Your task to perform on an android device: Clear the shopping cart on bestbuy. Add "dell xps" to the cart on bestbuy Image 0: 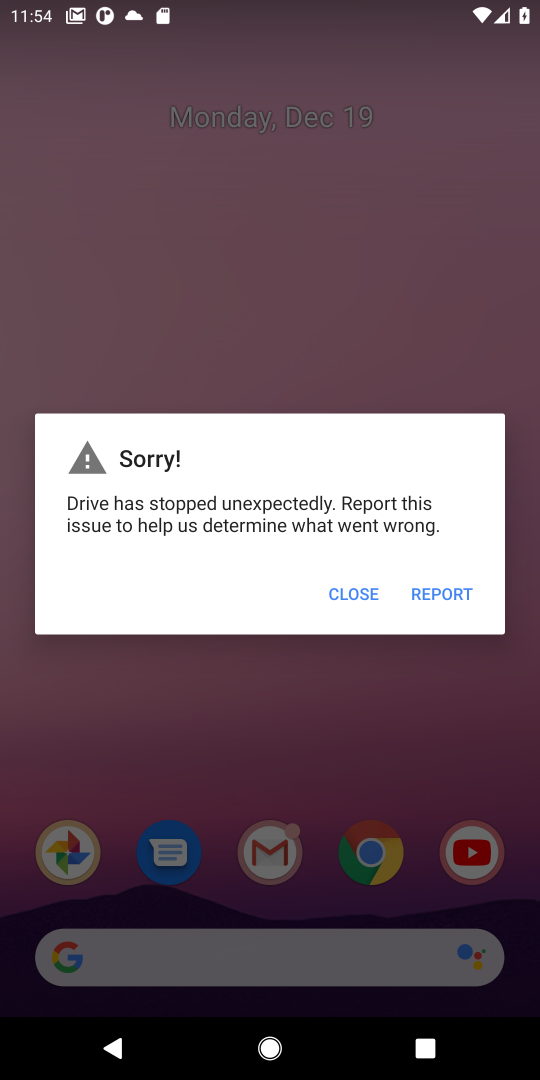
Step 0: press home button
Your task to perform on an android device: Clear the shopping cart on bestbuy. Add "dell xps" to the cart on bestbuy Image 1: 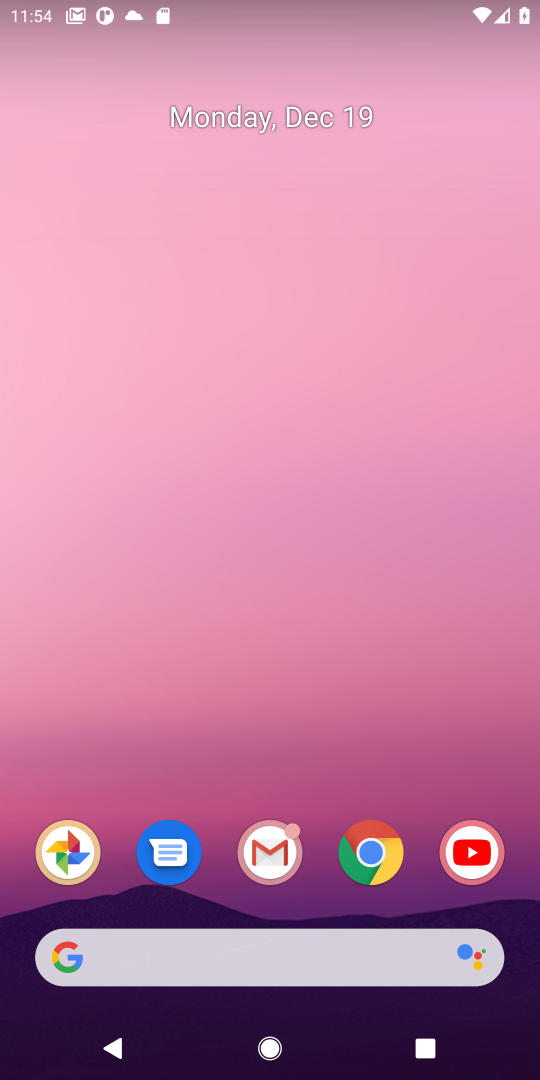
Step 1: click (373, 860)
Your task to perform on an android device: Clear the shopping cart on bestbuy. Add "dell xps" to the cart on bestbuy Image 2: 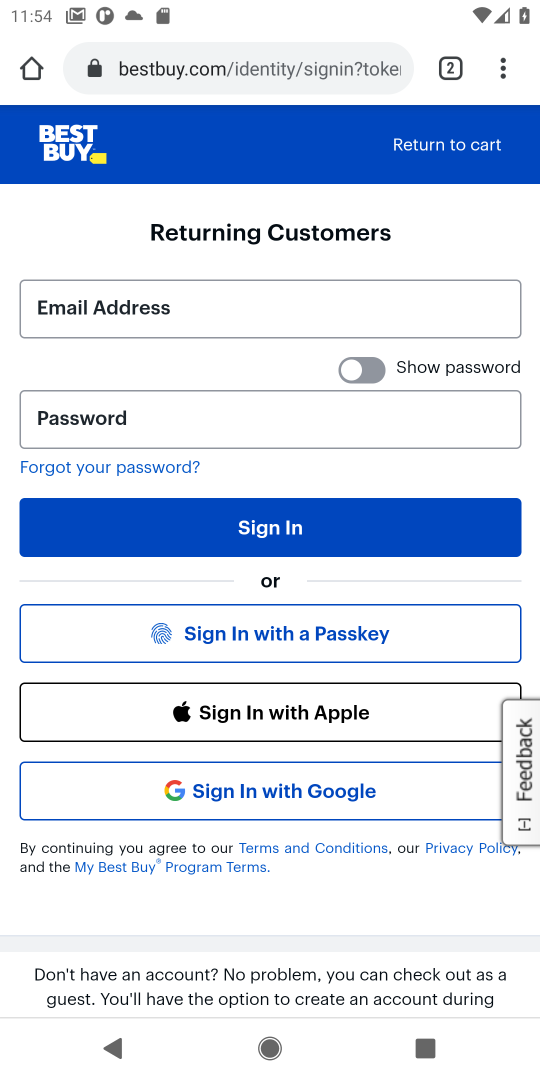
Step 2: press back button
Your task to perform on an android device: Clear the shopping cart on bestbuy. Add "dell xps" to the cart on bestbuy Image 3: 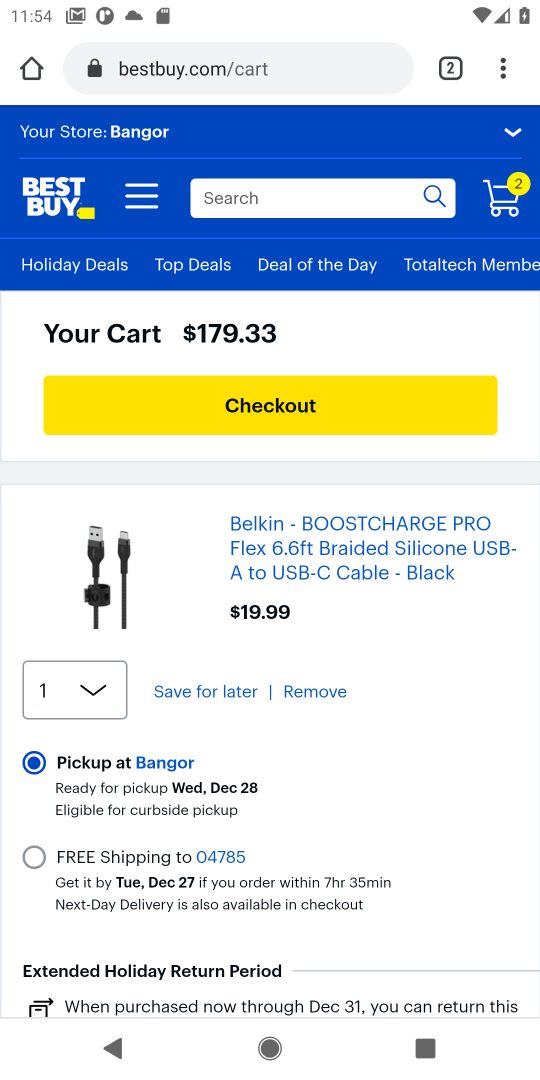
Step 3: drag from (334, 628) to (364, 380)
Your task to perform on an android device: Clear the shopping cart on bestbuy. Add "dell xps" to the cart on bestbuy Image 4: 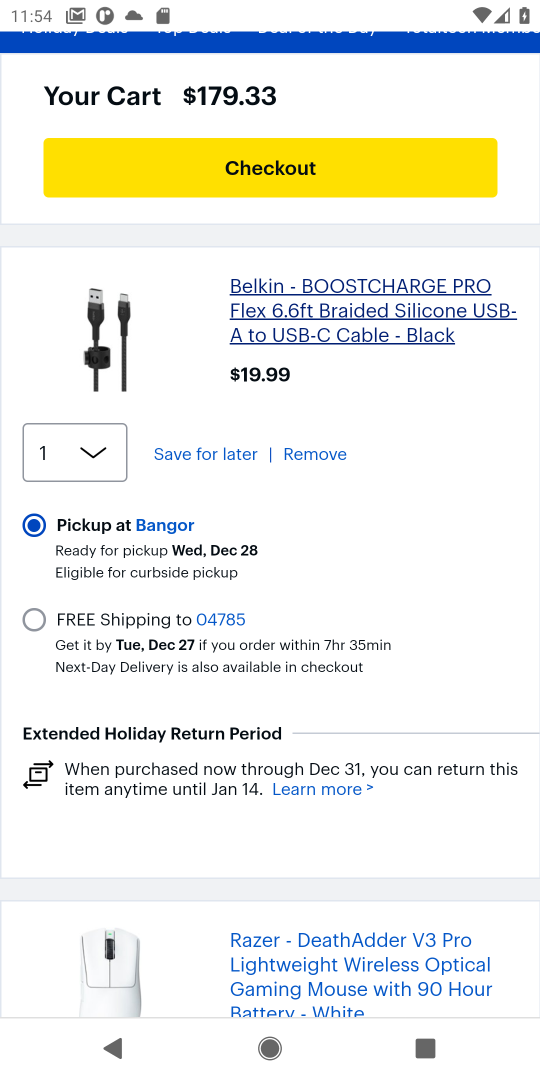
Step 4: click (315, 448)
Your task to perform on an android device: Clear the shopping cart on bestbuy. Add "dell xps" to the cart on bestbuy Image 5: 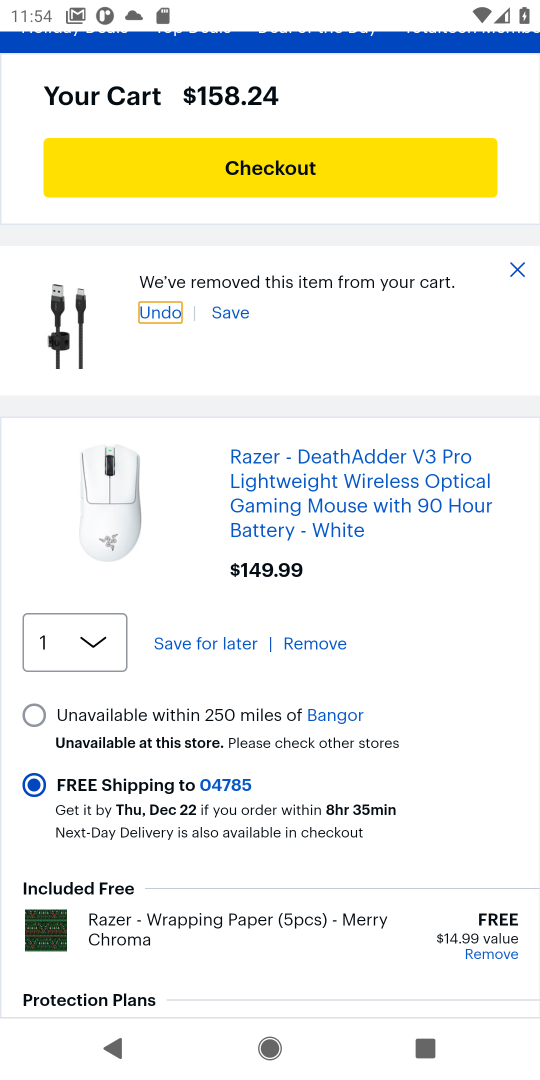
Step 5: click (311, 639)
Your task to perform on an android device: Clear the shopping cart on bestbuy. Add "dell xps" to the cart on bestbuy Image 6: 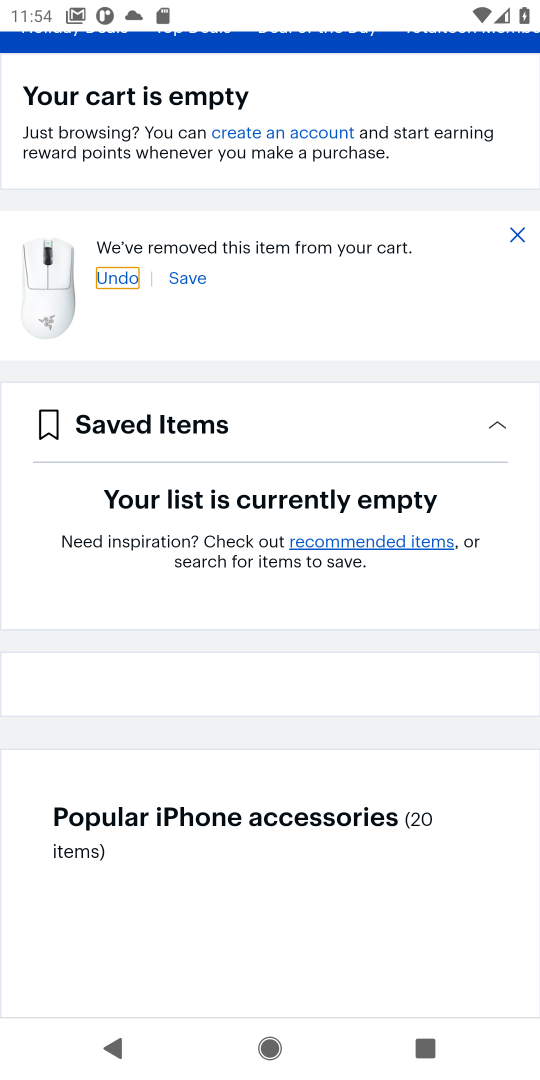
Step 6: drag from (211, 500) to (229, 836)
Your task to perform on an android device: Clear the shopping cart on bestbuy. Add "dell xps" to the cart on bestbuy Image 7: 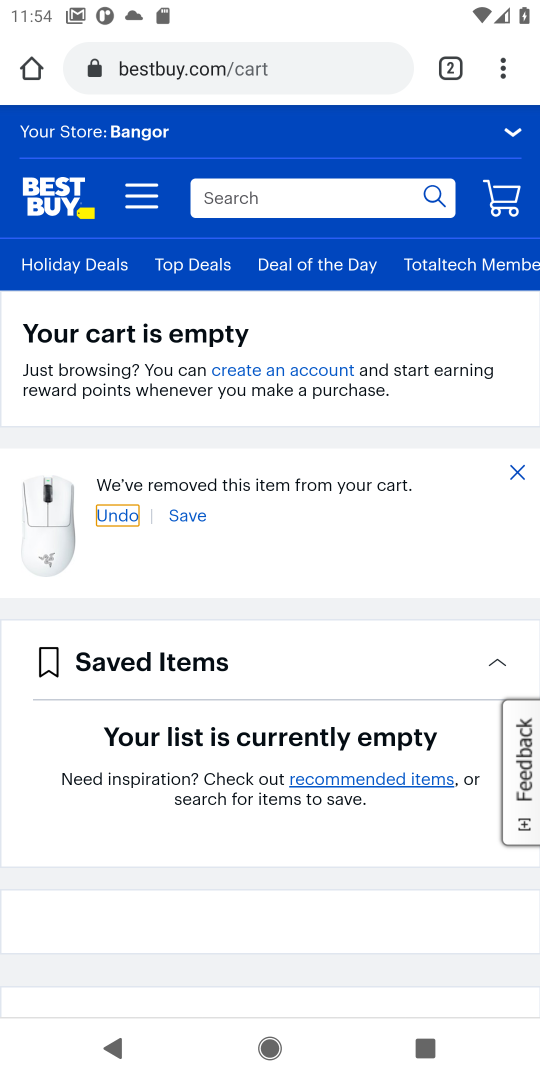
Step 7: click (252, 208)
Your task to perform on an android device: Clear the shopping cart on bestbuy. Add "dell xps" to the cart on bestbuy Image 8: 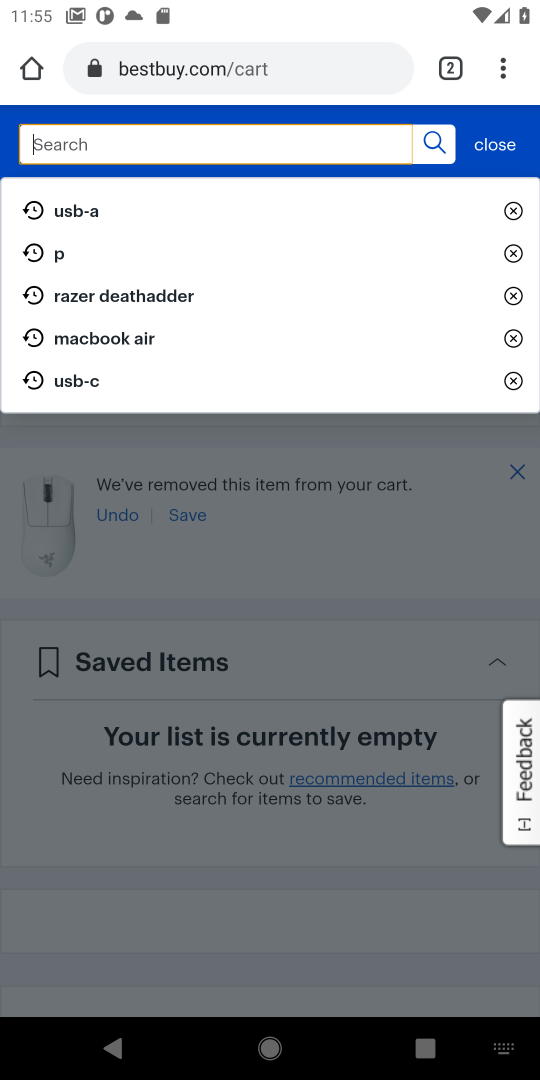
Step 8: type "dell xps"
Your task to perform on an android device: Clear the shopping cart on bestbuy. Add "dell xps" to the cart on bestbuy Image 9: 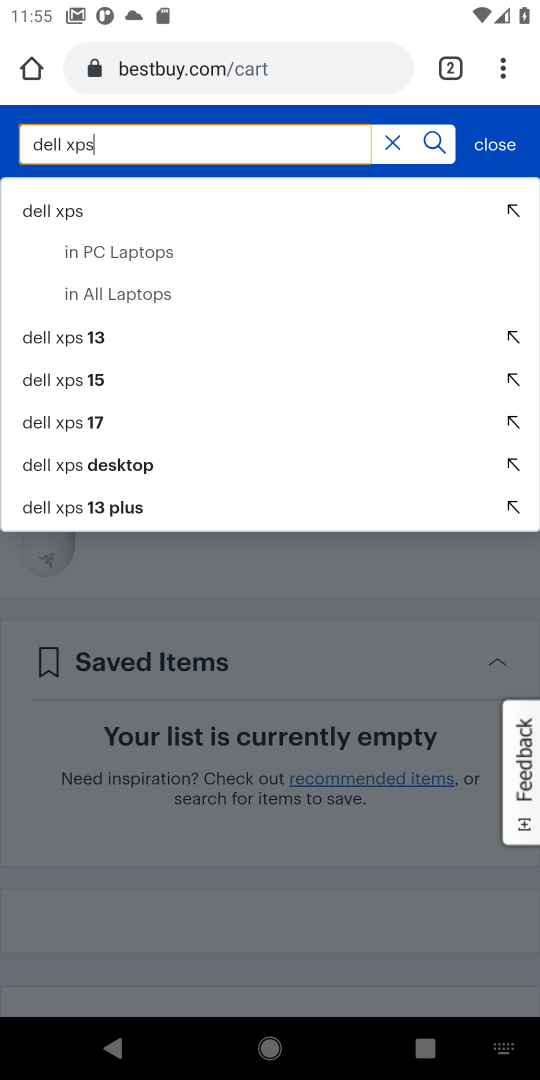
Step 9: click (54, 212)
Your task to perform on an android device: Clear the shopping cart on bestbuy. Add "dell xps" to the cart on bestbuy Image 10: 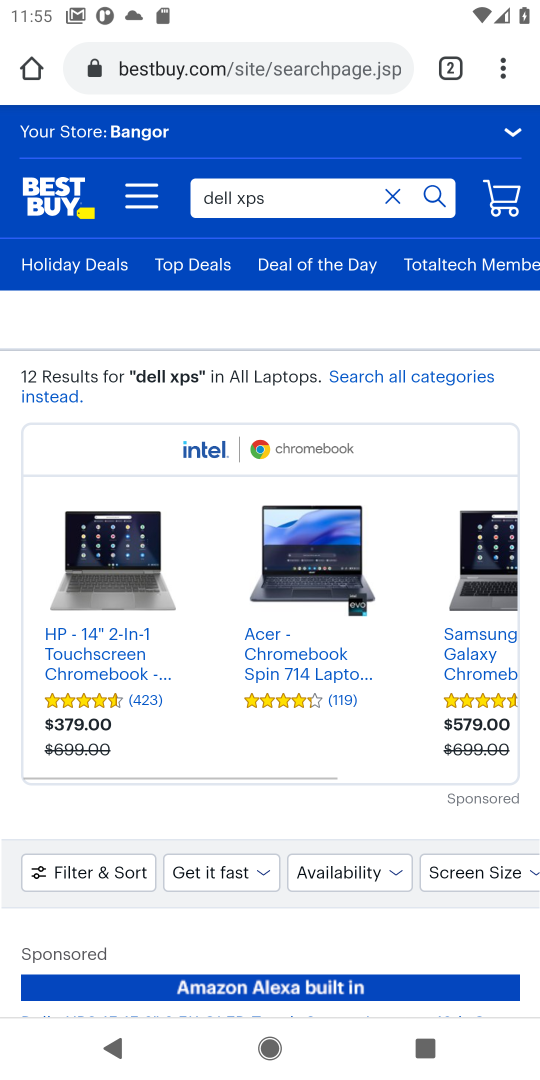
Step 10: drag from (221, 701) to (217, 329)
Your task to perform on an android device: Clear the shopping cart on bestbuy. Add "dell xps" to the cart on bestbuy Image 11: 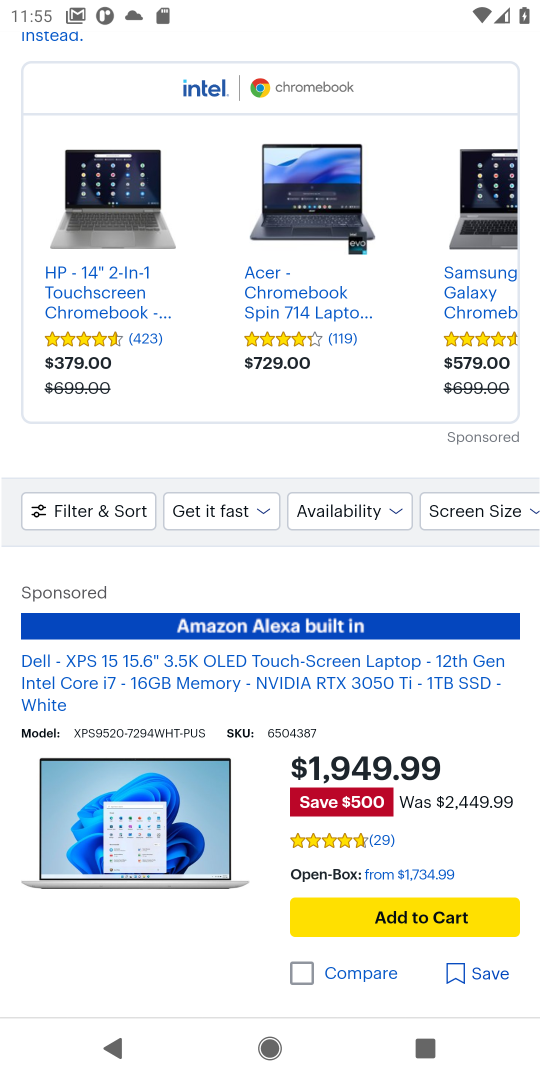
Step 11: drag from (243, 720) to (246, 355)
Your task to perform on an android device: Clear the shopping cart on bestbuy. Add "dell xps" to the cart on bestbuy Image 12: 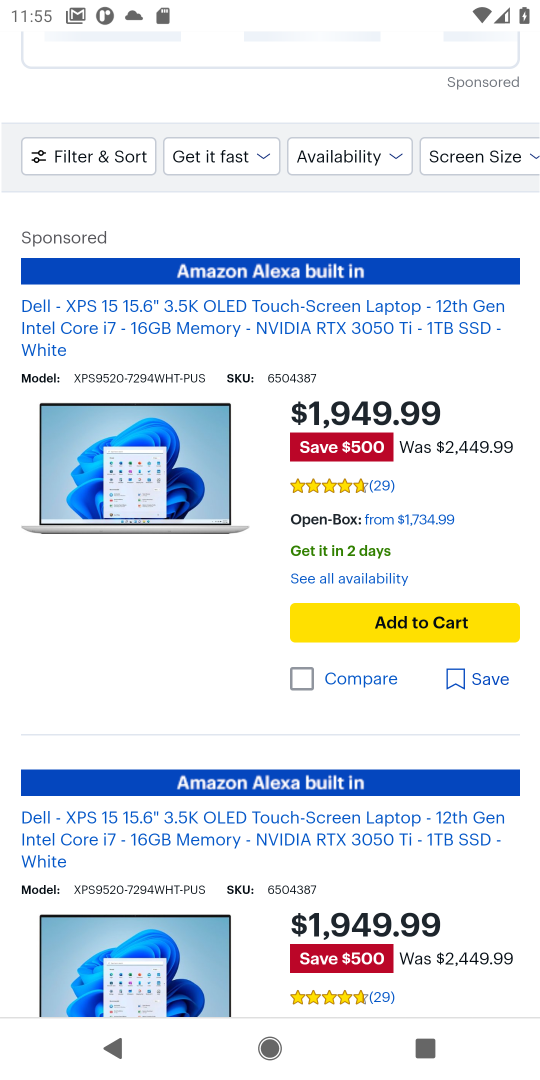
Step 12: click (424, 624)
Your task to perform on an android device: Clear the shopping cart on bestbuy. Add "dell xps" to the cart on bestbuy Image 13: 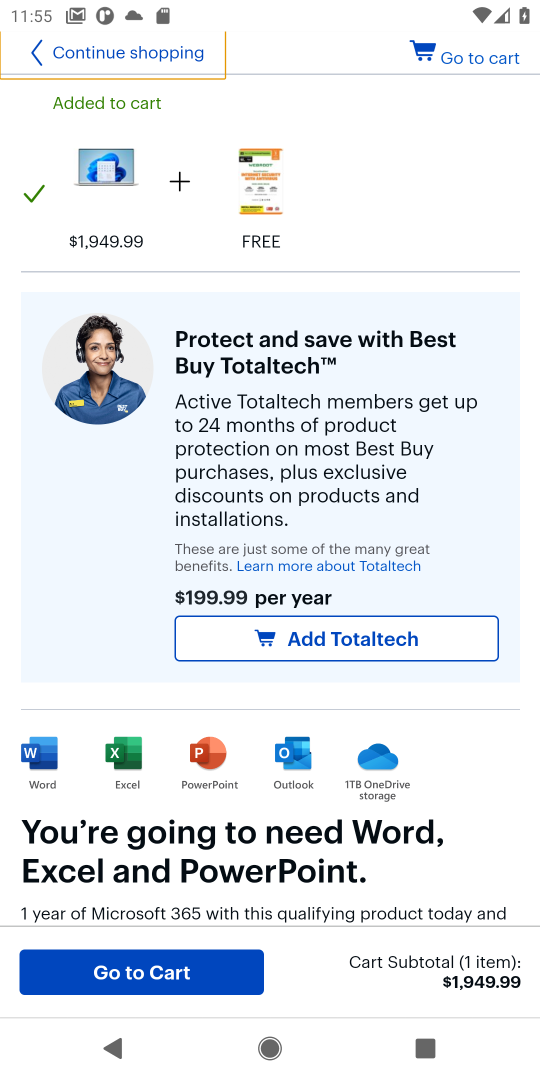
Step 13: task complete